Your task to perform on an android device: Search for dell xps on costco, select the first entry, and add it to the cart. Image 0: 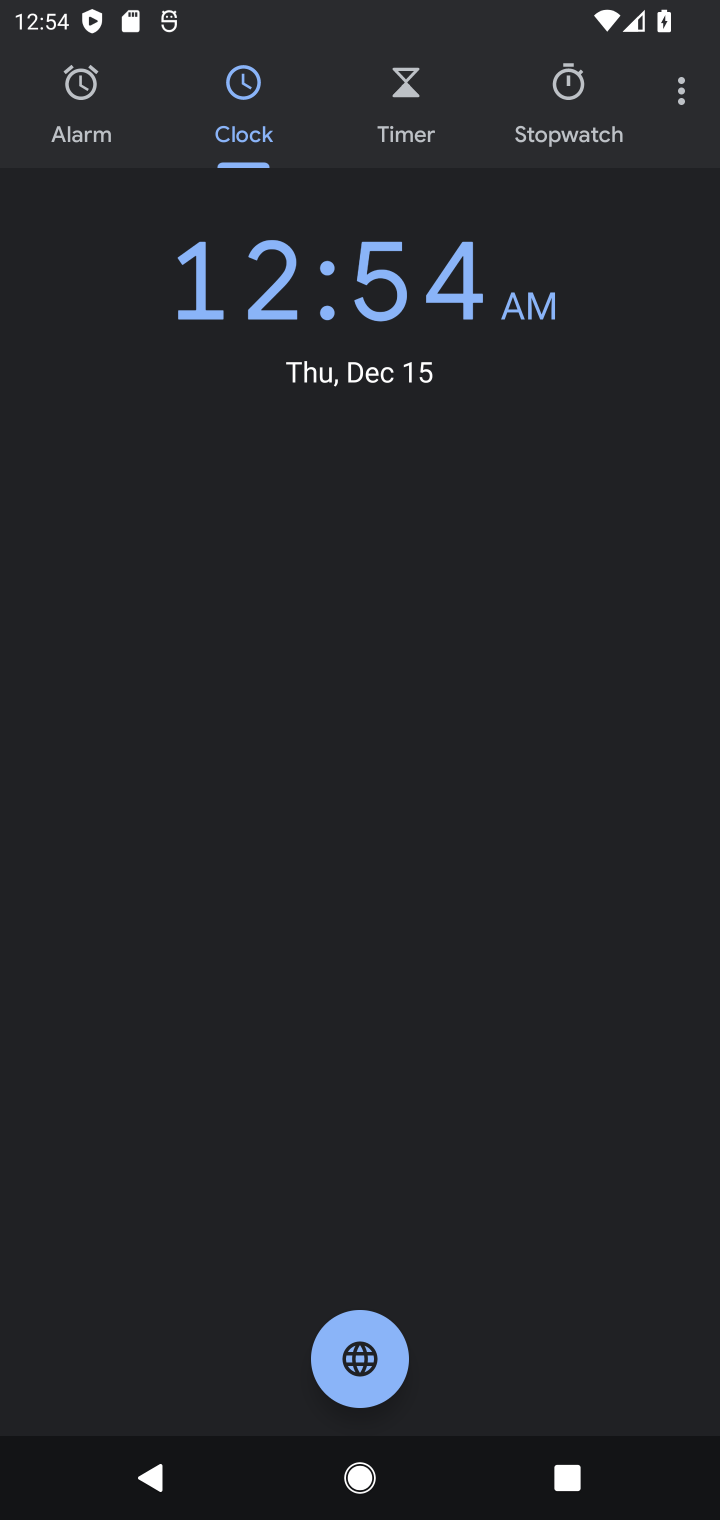
Step 0: press home button
Your task to perform on an android device: Search for dell xps on costco, select the first entry, and add it to the cart. Image 1: 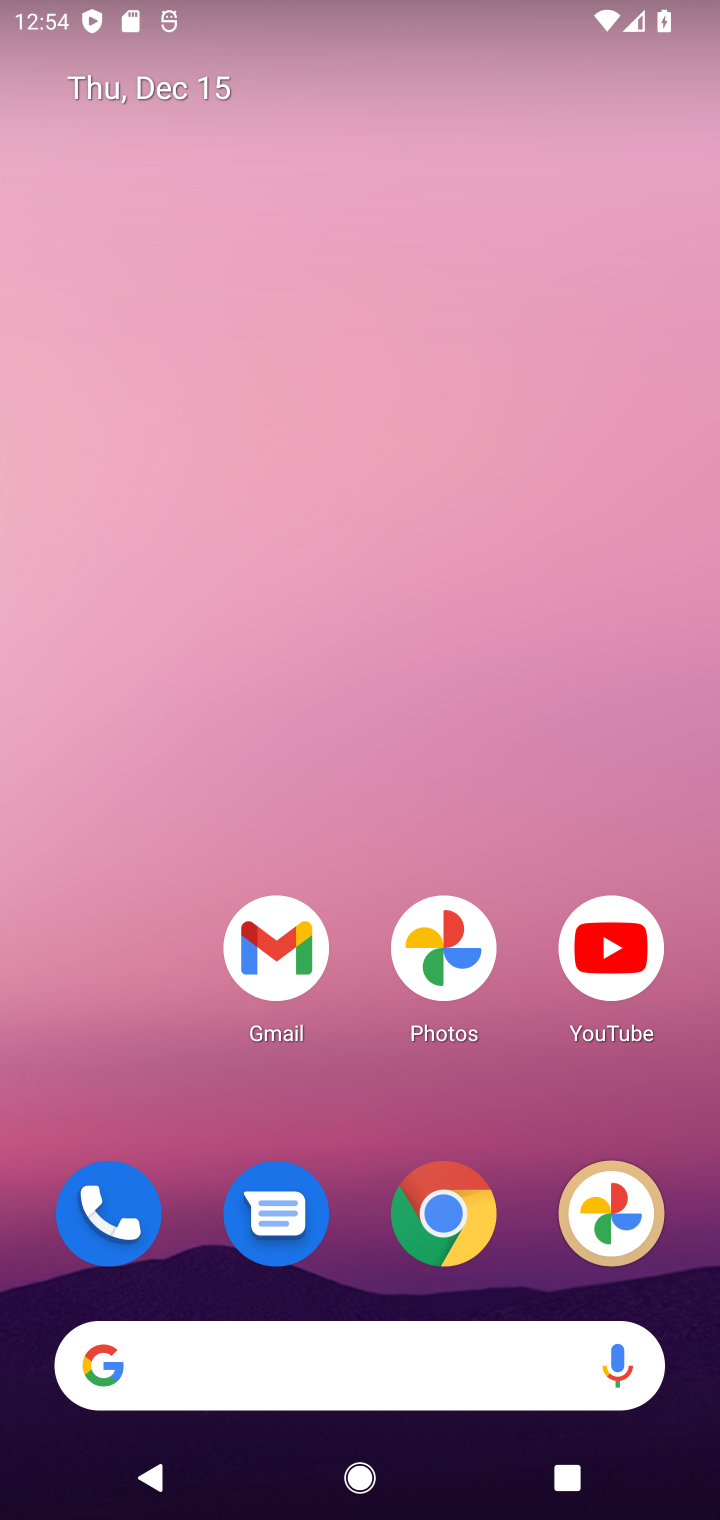
Step 1: click (454, 1224)
Your task to perform on an android device: Search for dell xps on costco, select the first entry, and add it to the cart. Image 2: 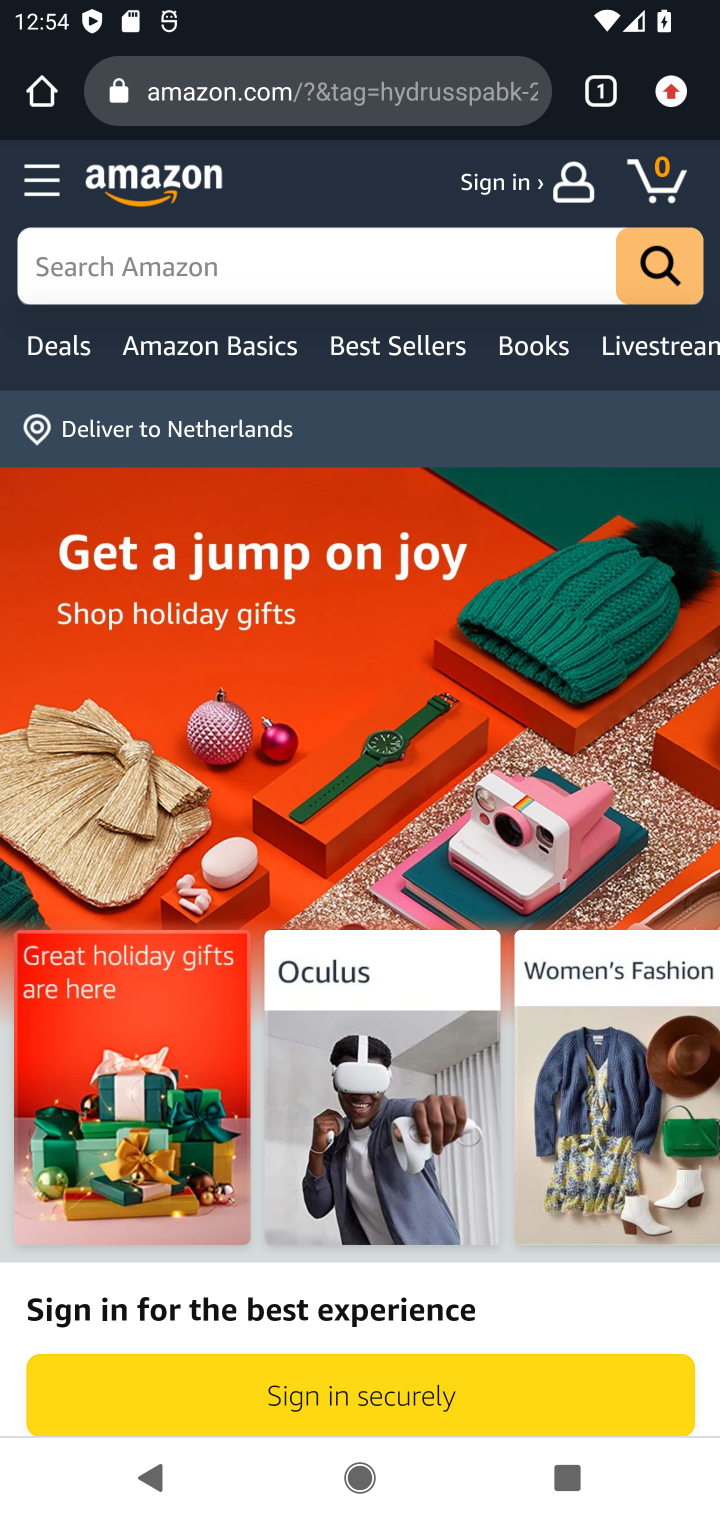
Step 2: task complete